Your task to perform on an android device: check android version Image 0: 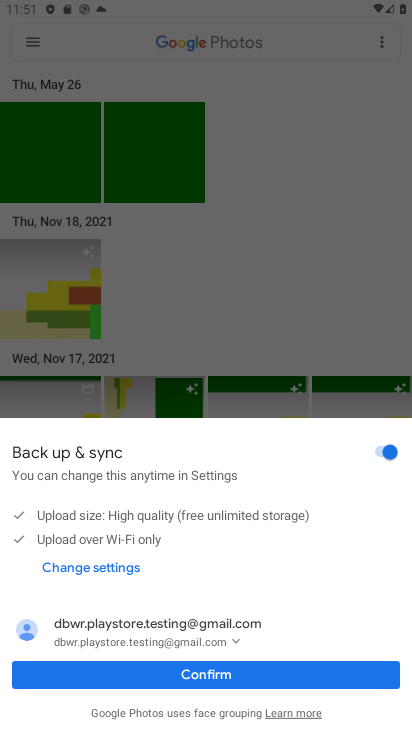
Step 0: press home button
Your task to perform on an android device: check android version Image 1: 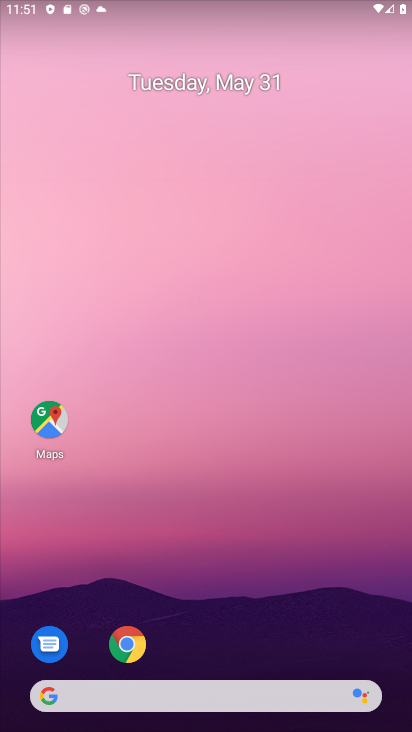
Step 1: drag from (295, 615) to (310, 131)
Your task to perform on an android device: check android version Image 2: 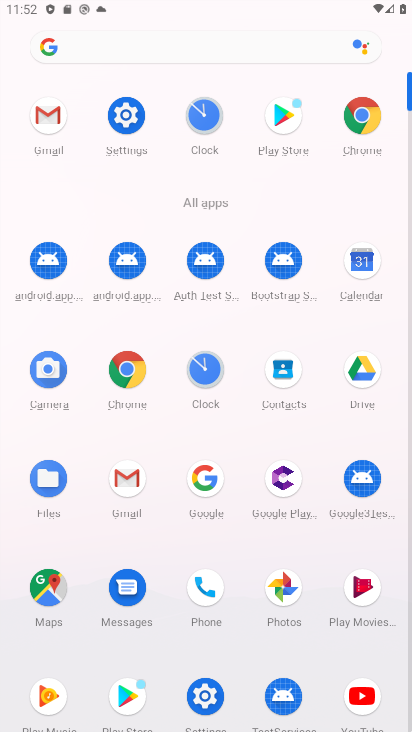
Step 2: click (136, 125)
Your task to perform on an android device: check android version Image 3: 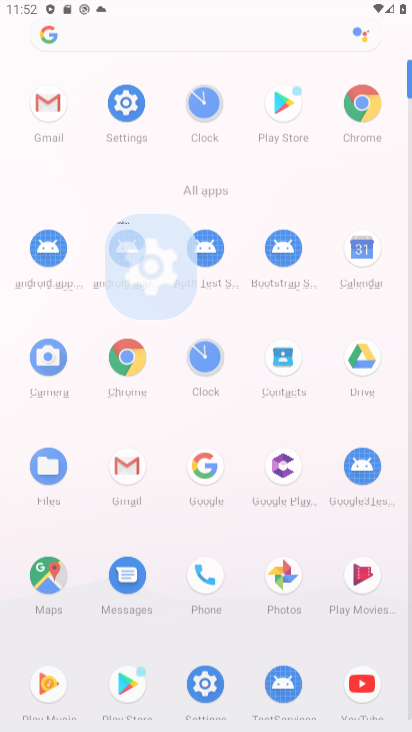
Step 3: click (136, 117)
Your task to perform on an android device: check android version Image 4: 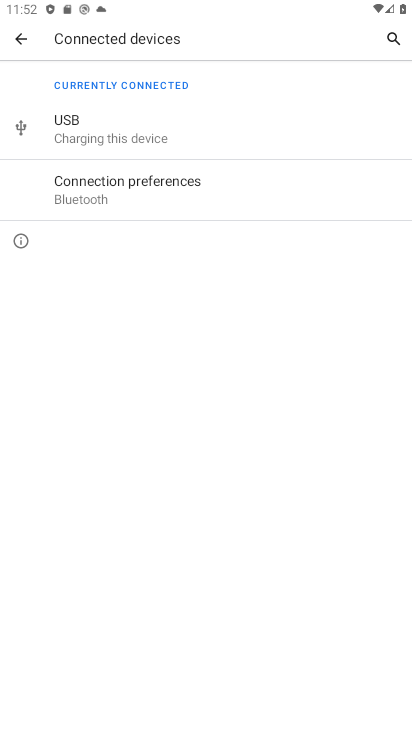
Step 4: click (17, 49)
Your task to perform on an android device: check android version Image 5: 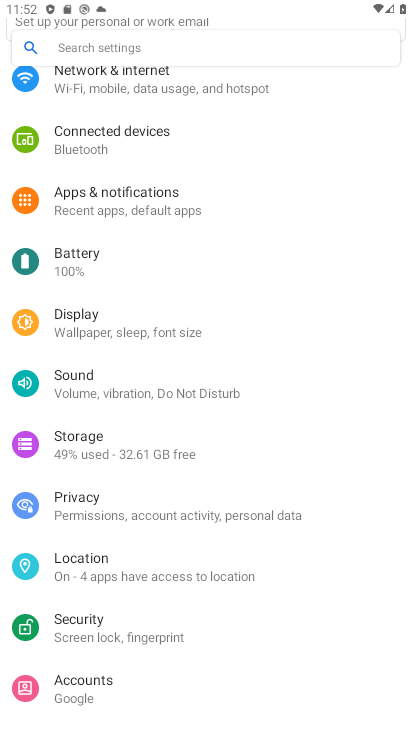
Step 5: drag from (202, 646) to (240, 244)
Your task to perform on an android device: check android version Image 6: 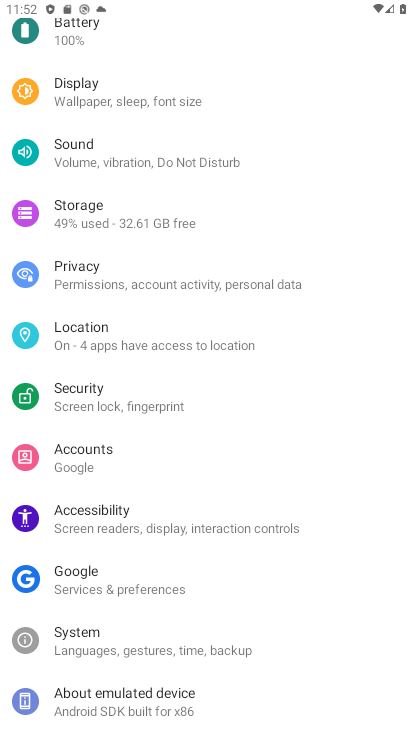
Step 6: drag from (180, 685) to (229, 273)
Your task to perform on an android device: check android version Image 7: 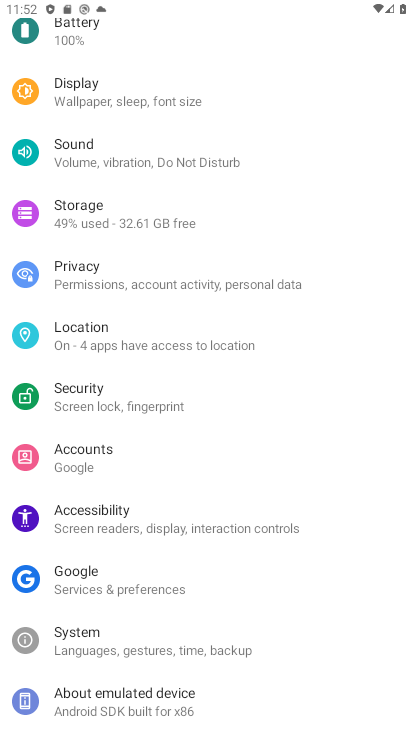
Step 7: click (185, 705)
Your task to perform on an android device: check android version Image 8: 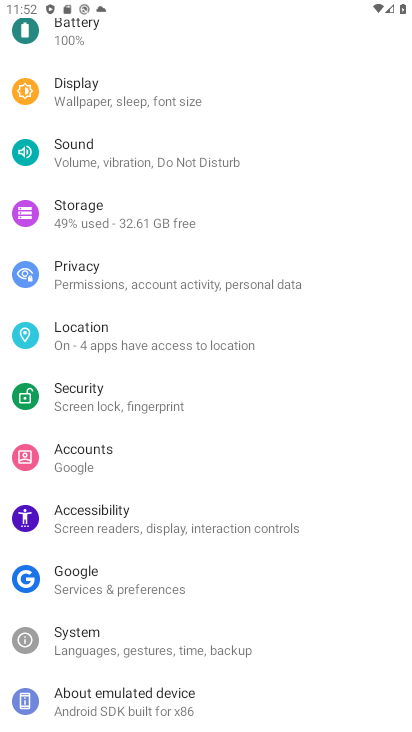
Step 8: click (185, 705)
Your task to perform on an android device: check android version Image 9: 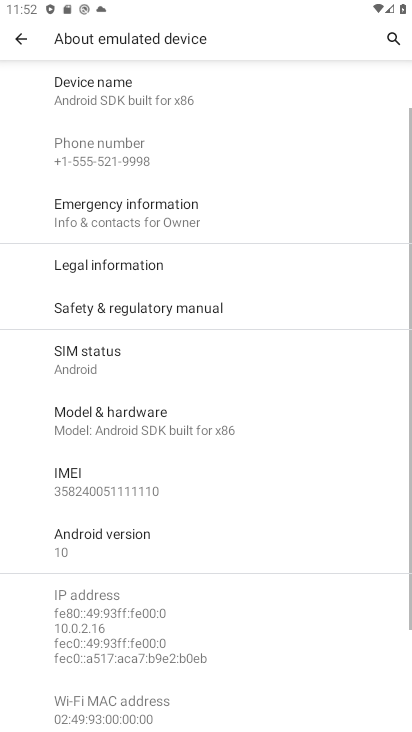
Step 9: click (164, 527)
Your task to perform on an android device: check android version Image 10: 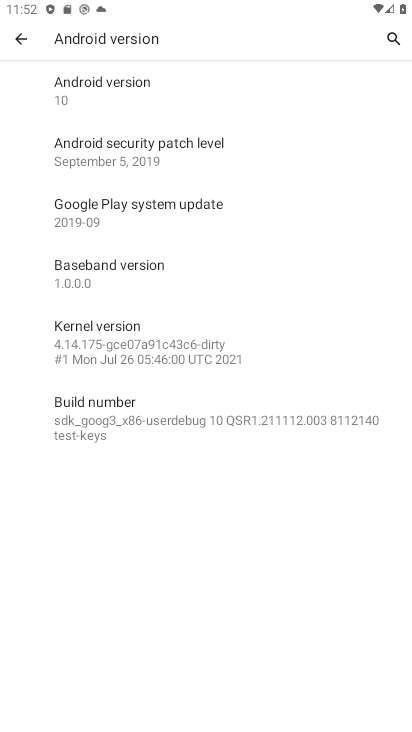
Step 10: task complete